Your task to perform on an android device: set the timer Image 0: 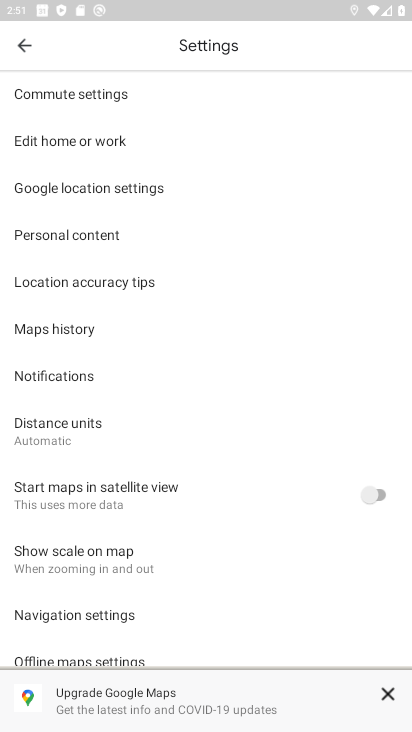
Step 0: press home button
Your task to perform on an android device: set the timer Image 1: 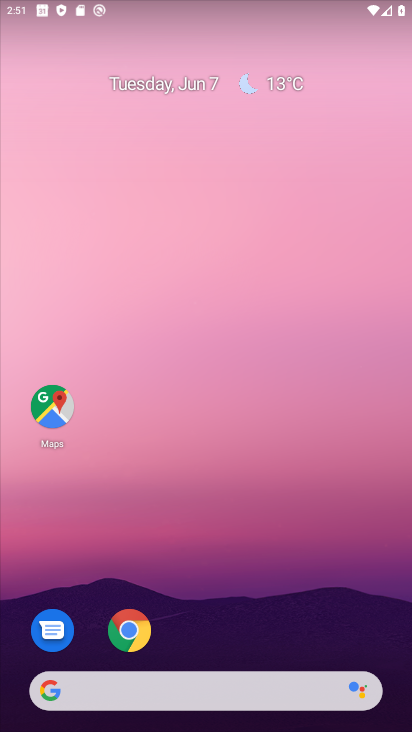
Step 1: drag from (208, 686) to (210, 39)
Your task to perform on an android device: set the timer Image 2: 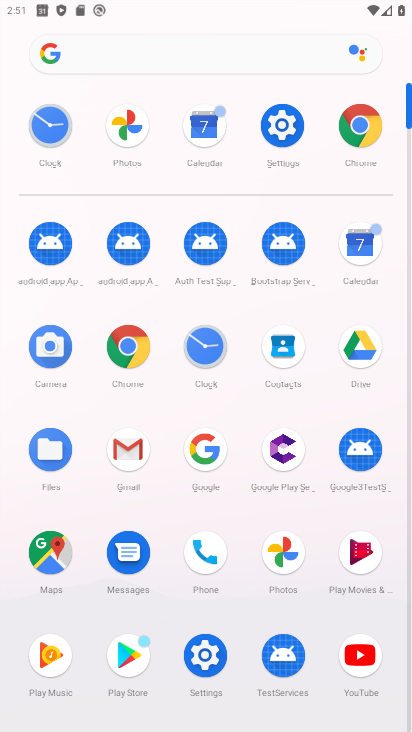
Step 2: click (205, 349)
Your task to perform on an android device: set the timer Image 3: 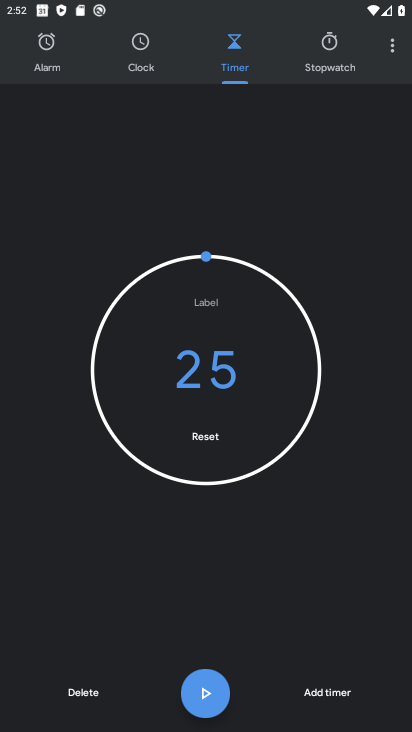
Step 3: click (83, 692)
Your task to perform on an android device: set the timer Image 4: 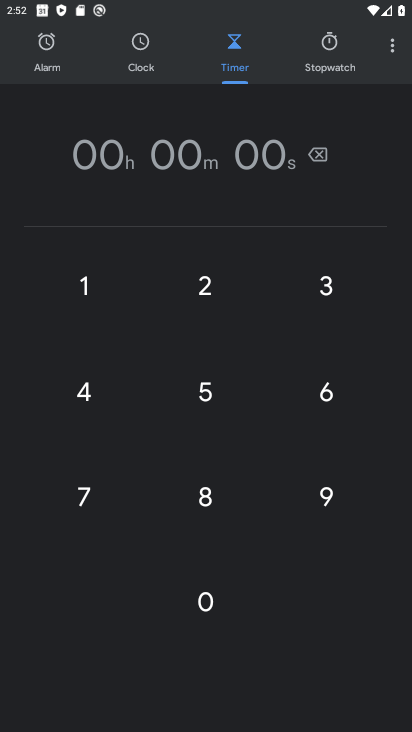
Step 4: click (202, 369)
Your task to perform on an android device: set the timer Image 5: 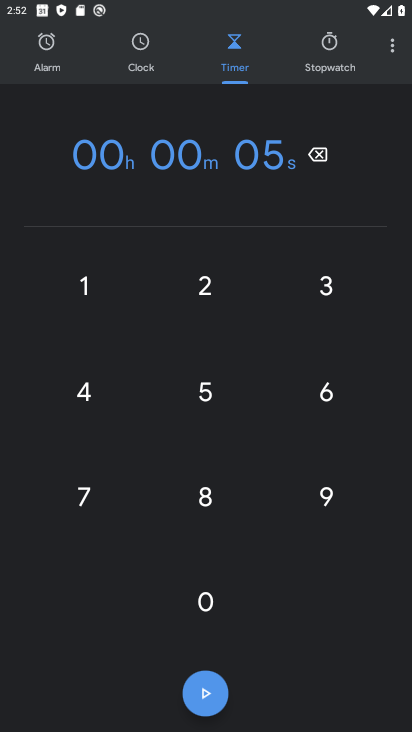
Step 5: click (91, 321)
Your task to perform on an android device: set the timer Image 6: 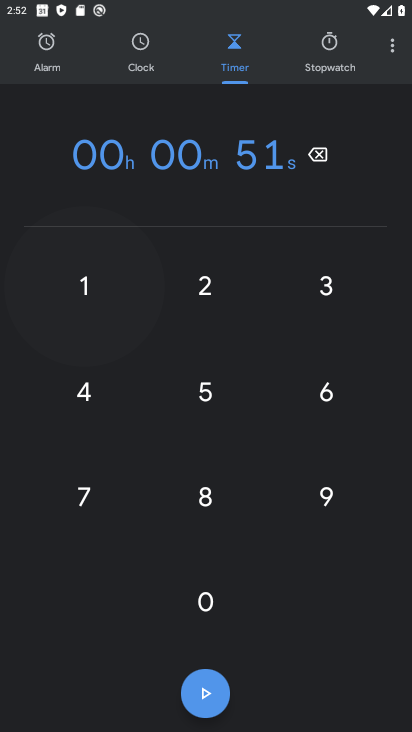
Step 6: click (73, 424)
Your task to perform on an android device: set the timer Image 7: 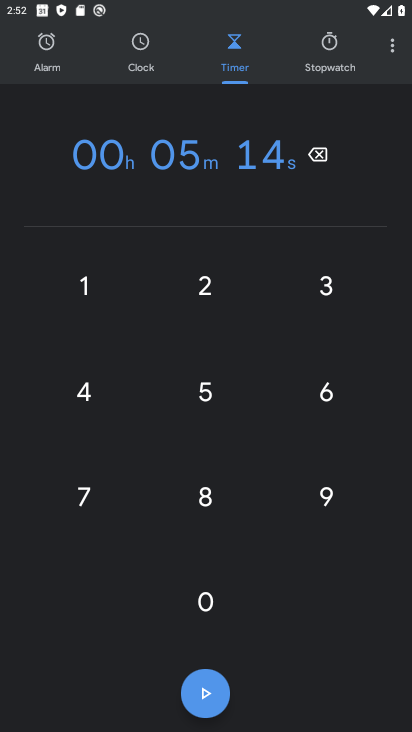
Step 7: click (208, 689)
Your task to perform on an android device: set the timer Image 8: 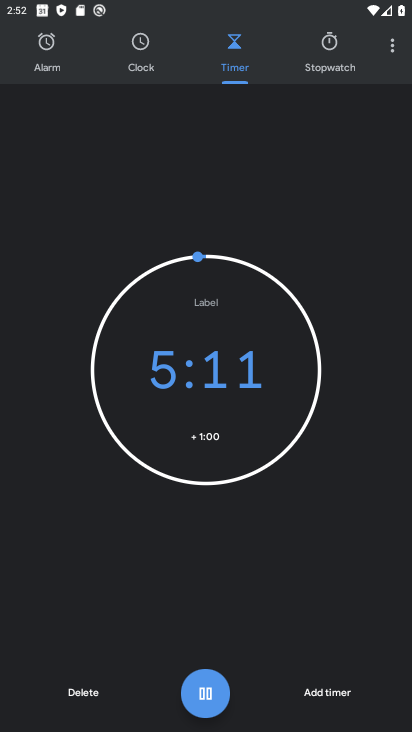
Step 8: task complete